Your task to perform on an android device: open the mobile data screen to see how much data has been used Image 0: 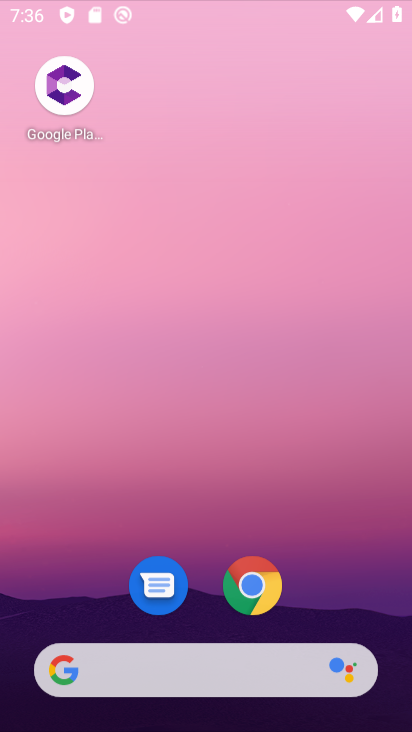
Step 0: click (250, 578)
Your task to perform on an android device: open the mobile data screen to see how much data has been used Image 1: 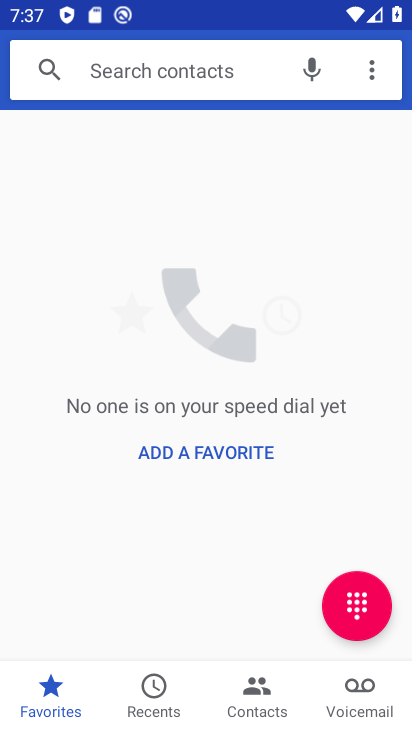
Step 1: press home button
Your task to perform on an android device: open the mobile data screen to see how much data has been used Image 2: 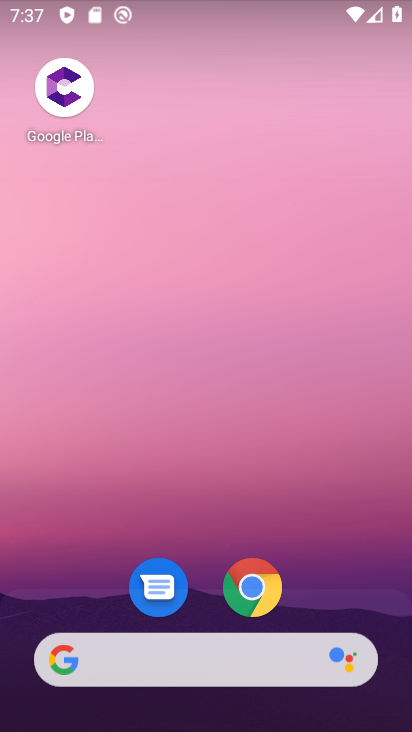
Step 2: drag from (348, 615) to (388, 139)
Your task to perform on an android device: open the mobile data screen to see how much data has been used Image 3: 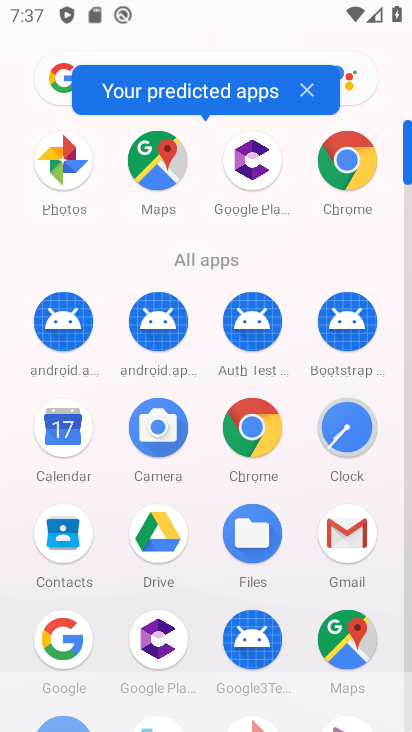
Step 3: drag from (255, 559) to (314, 177)
Your task to perform on an android device: open the mobile data screen to see how much data has been used Image 4: 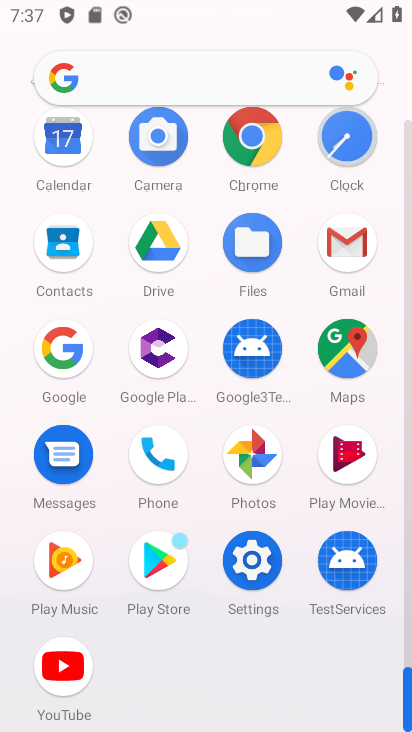
Step 4: click (259, 586)
Your task to perform on an android device: open the mobile data screen to see how much data has been used Image 5: 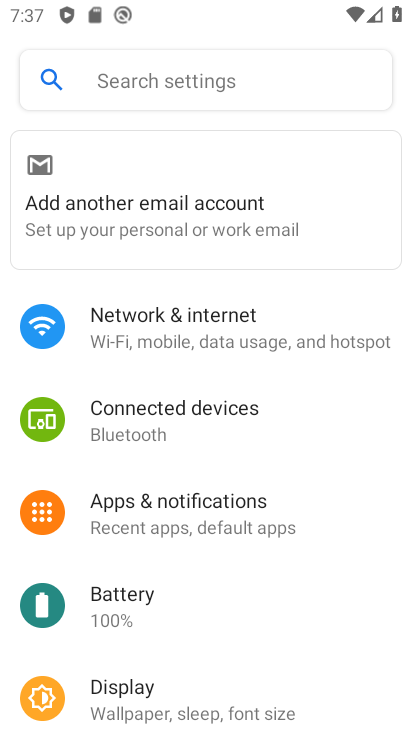
Step 5: click (192, 316)
Your task to perform on an android device: open the mobile data screen to see how much data has been used Image 6: 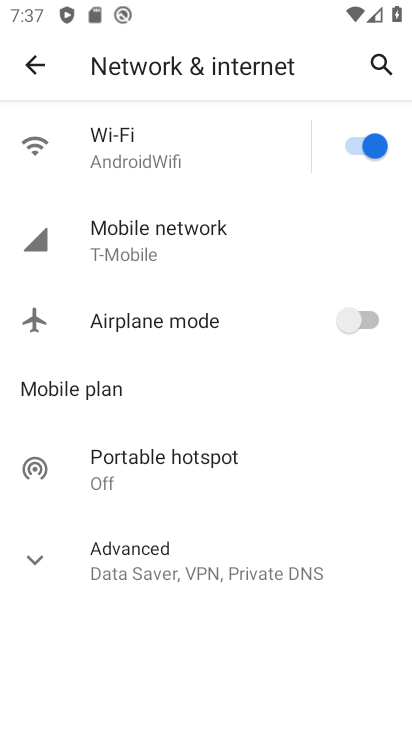
Step 6: click (189, 248)
Your task to perform on an android device: open the mobile data screen to see how much data has been used Image 7: 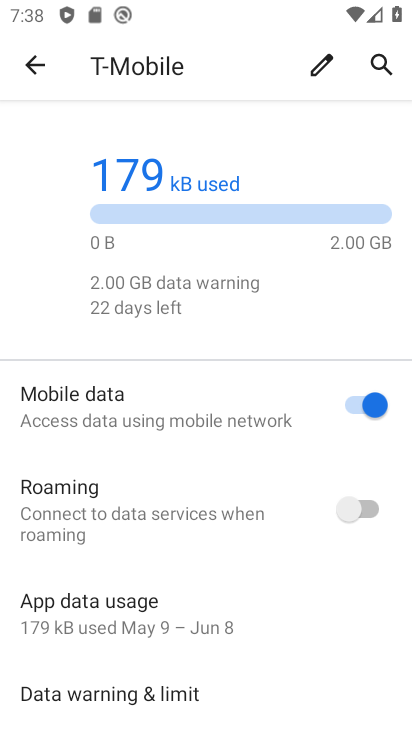
Step 7: task complete